Your task to perform on an android device: Go to sound settings Image 0: 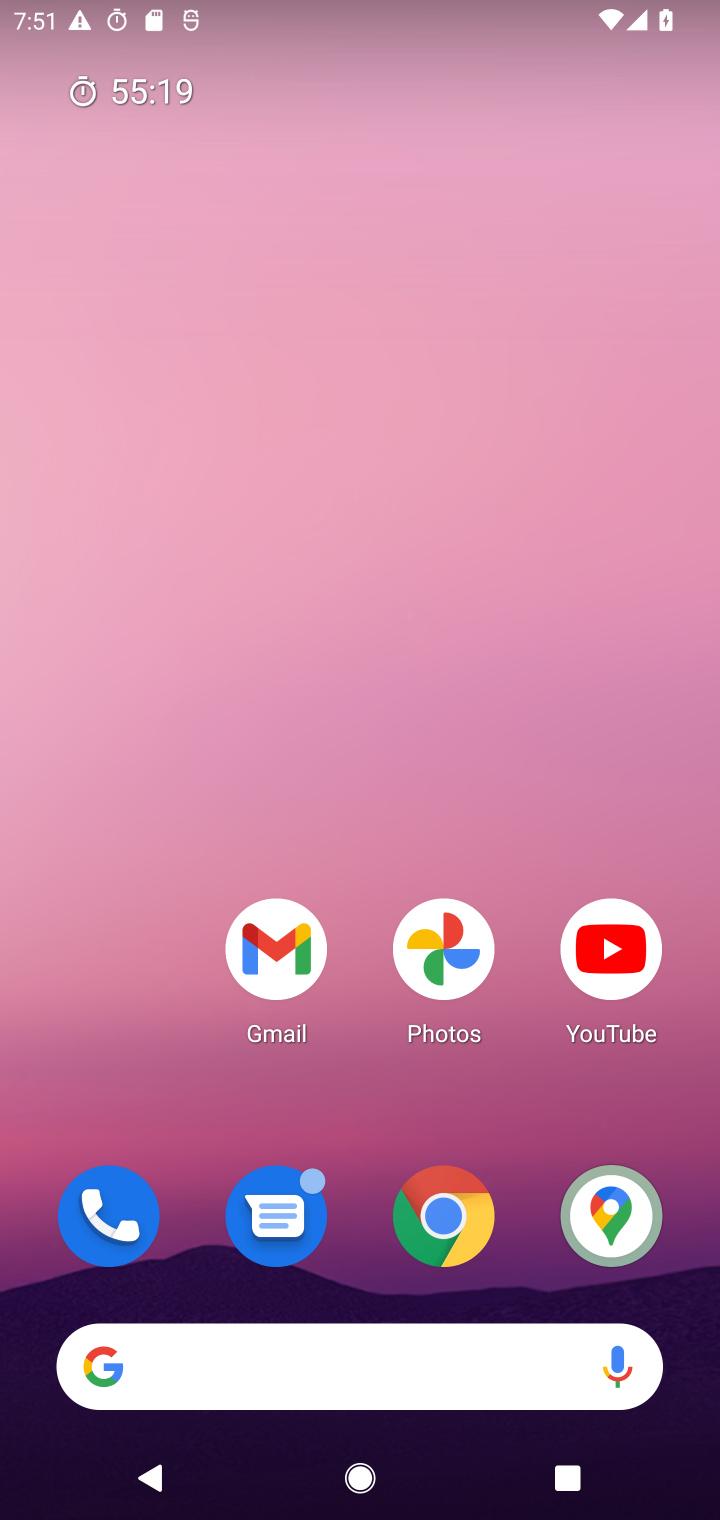
Step 0: drag from (389, 1128) to (434, 45)
Your task to perform on an android device: Go to sound settings Image 1: 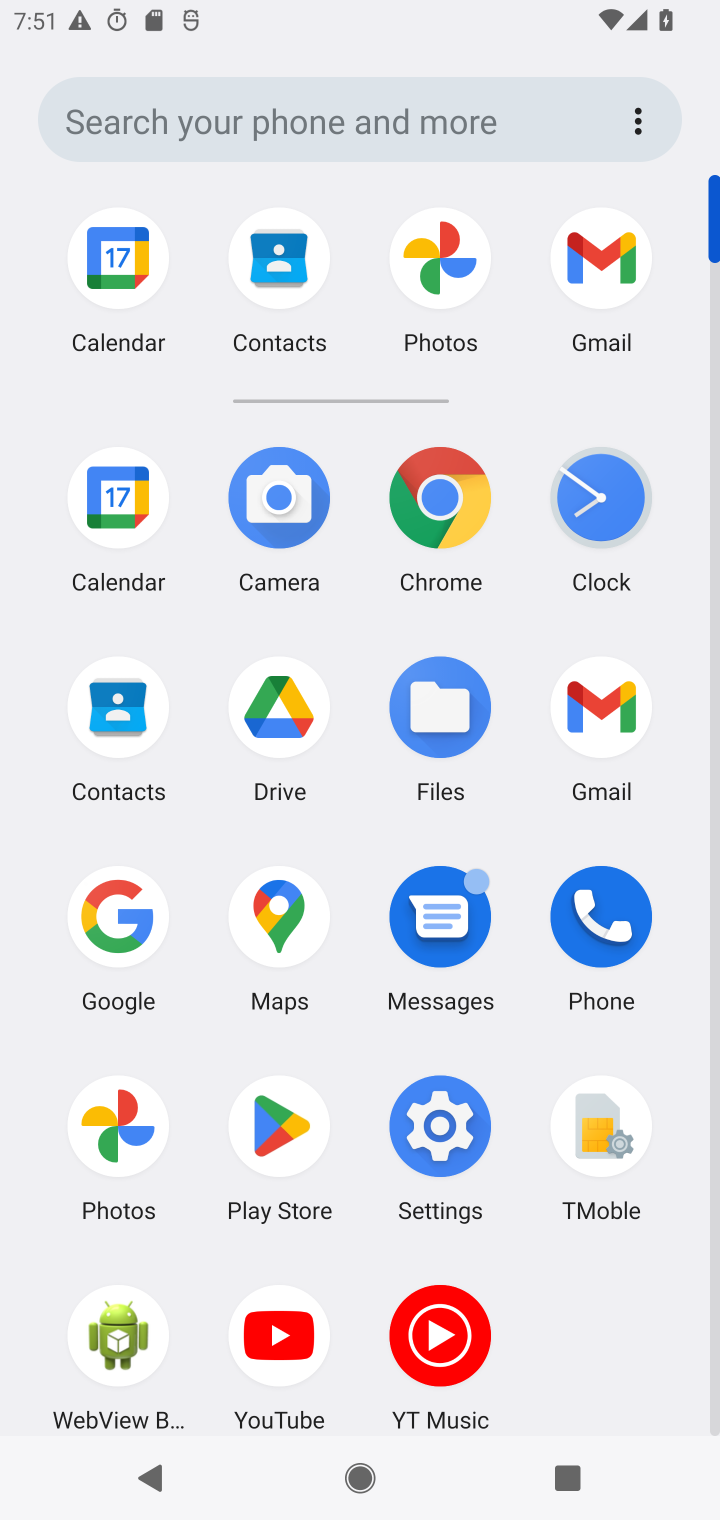
Step 1: click (448, 1107)
Your task to perform on an android device: Go to sound settings Image 2: 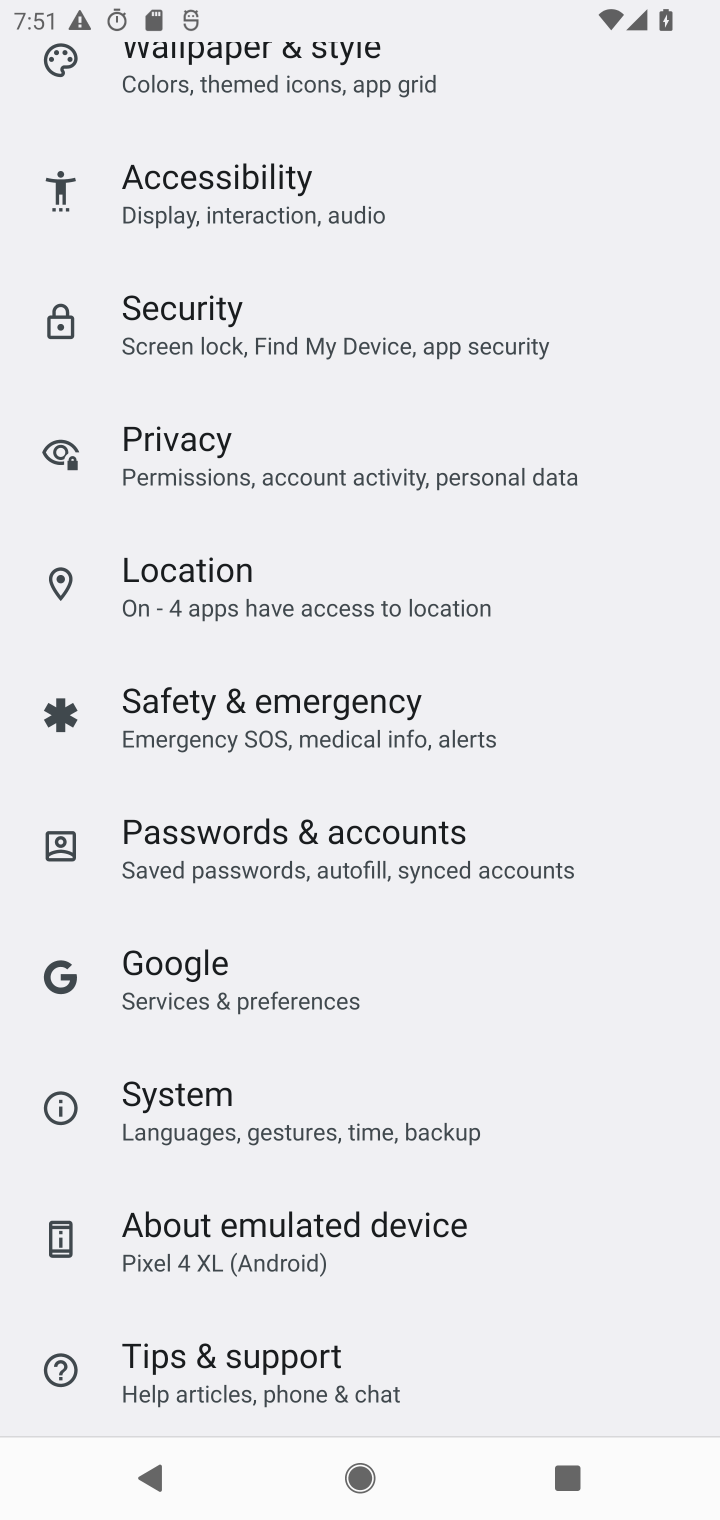
Step 2: drag from (294, 1145) to (226, 1181)
Your task to perform on an android device: Go to sound settings Image 3: 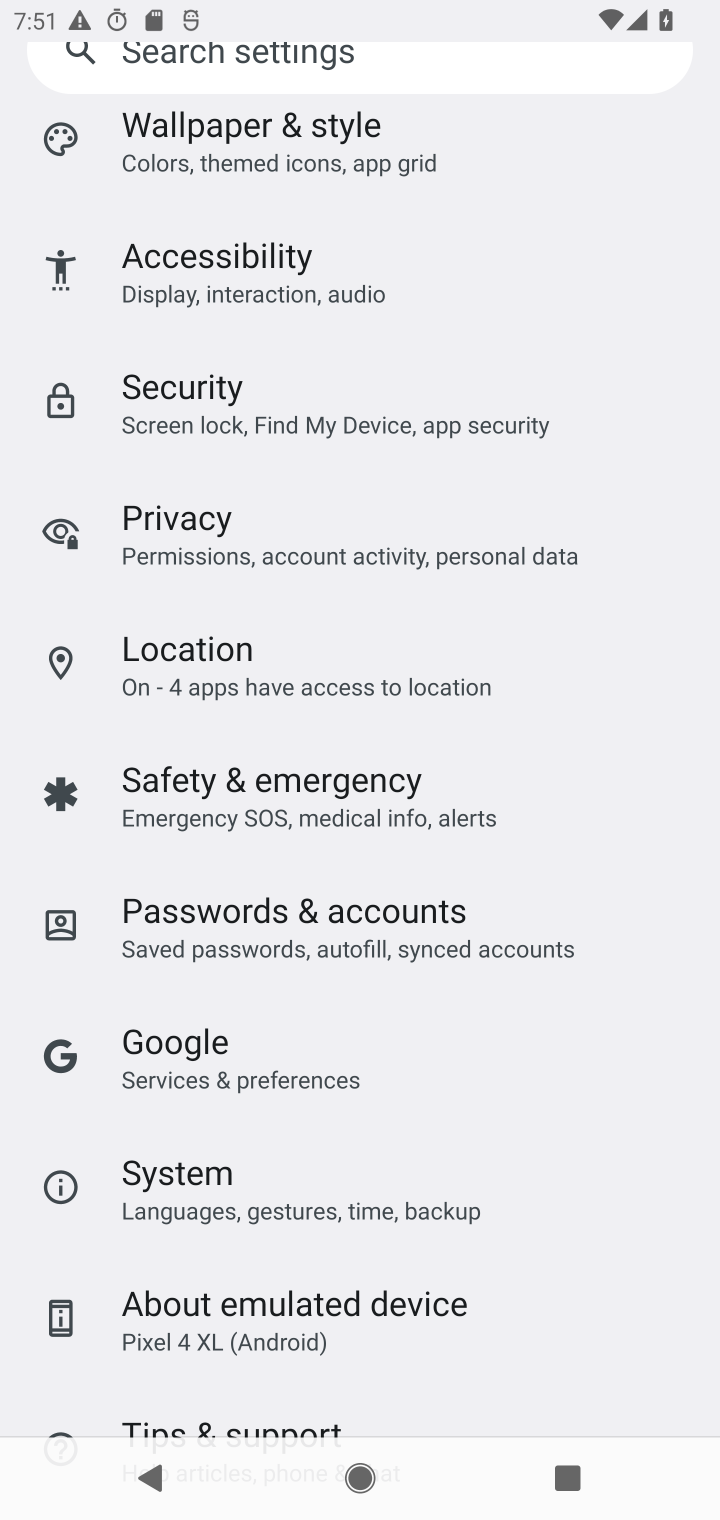
Step 3: drag from (299, 390) to (234, 1085)
Your task to perform on an android device: Go to sound settings Image 4: 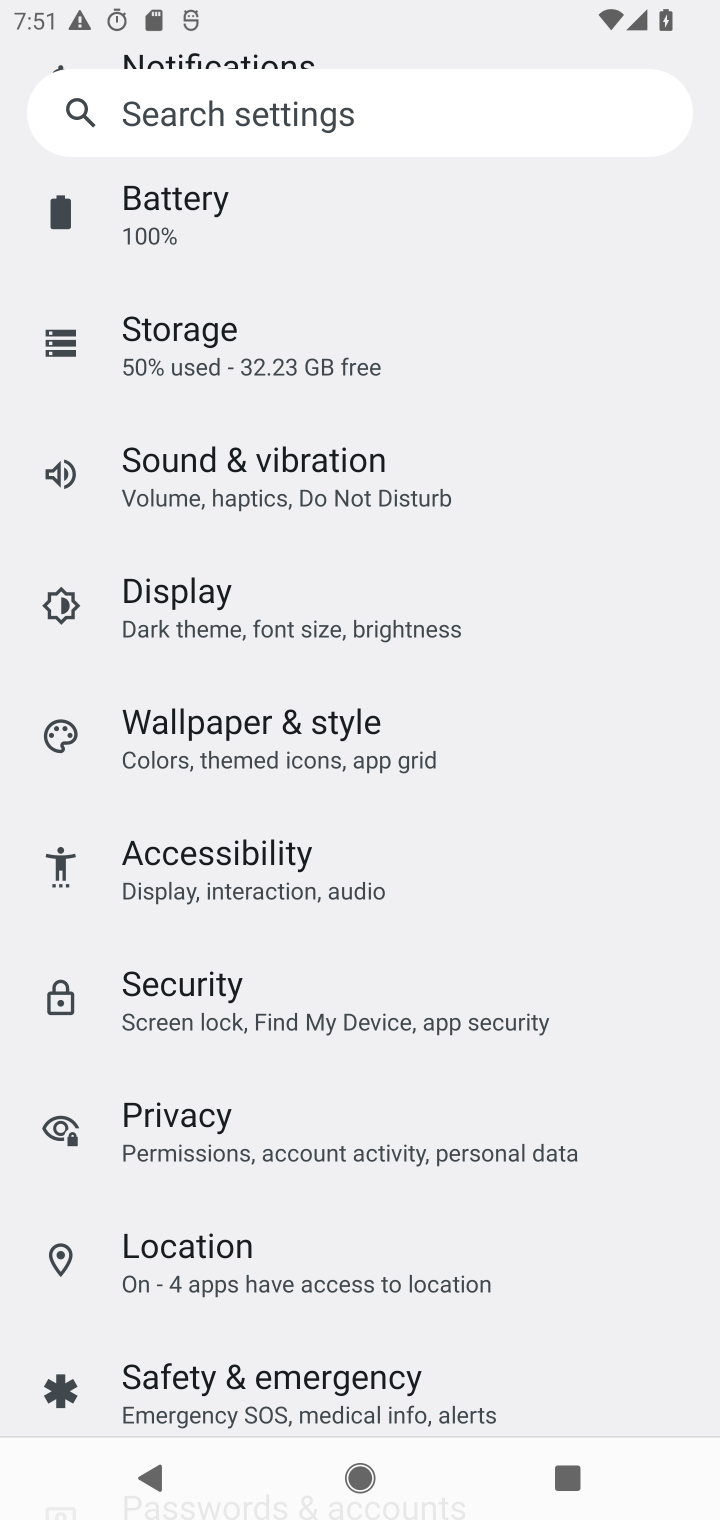
Step 4: drag from (243, 331) to (227, 1067)
Your task to perform on an android device: Go to sound settings Image 5: 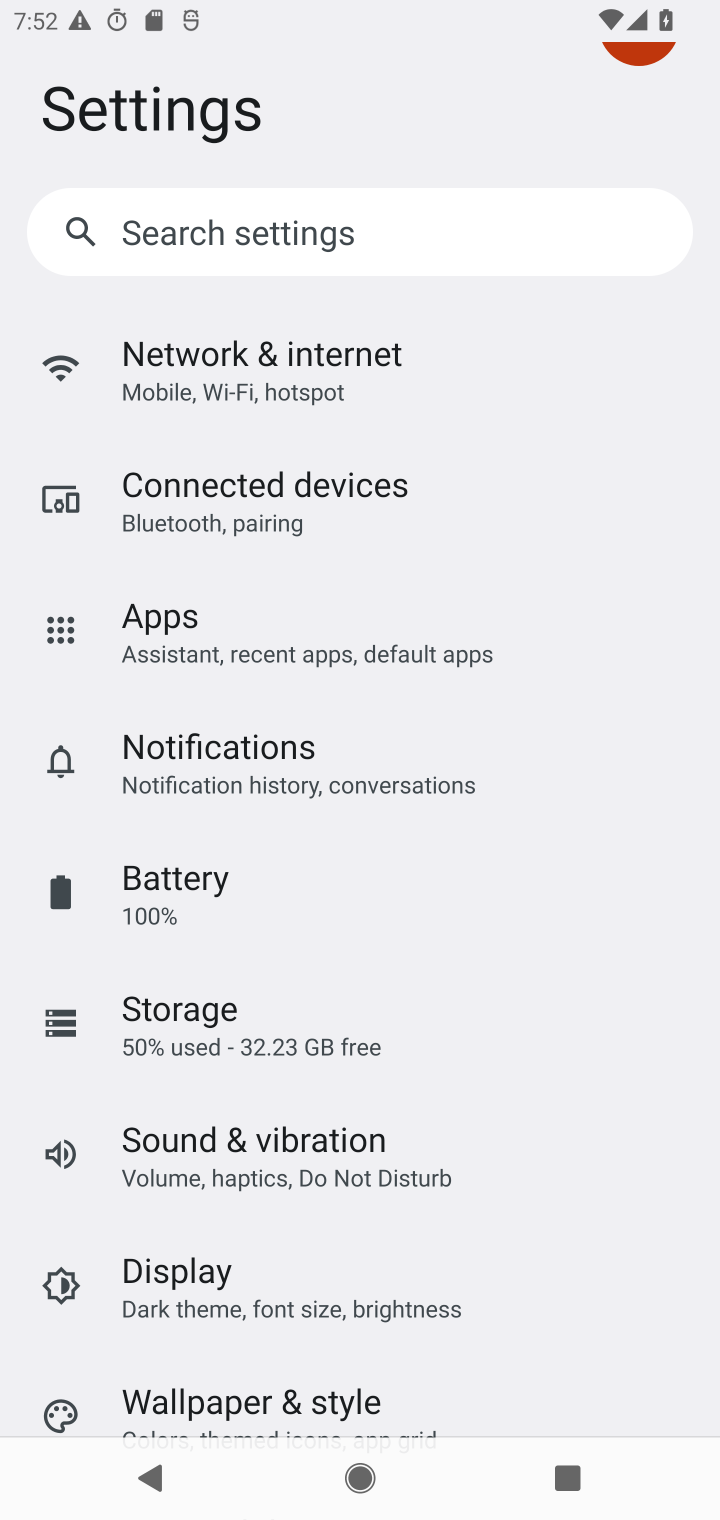
Step 5: click (188, 1139)
Your task to perform on an android device: Go to sound settings Image 6: 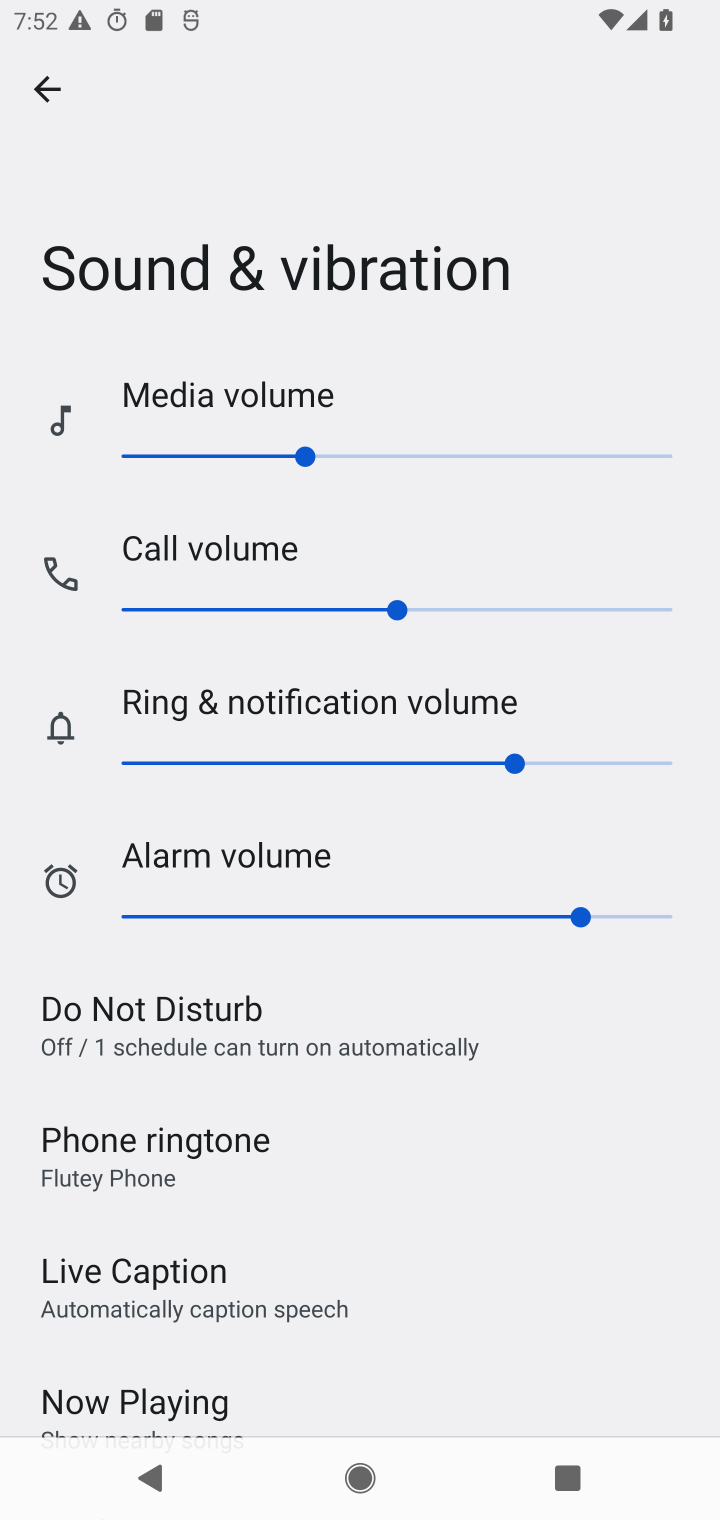
Step 6: task complete